Your task to perform on an android device: see tabs open on other devices in the chrome app Image 0: 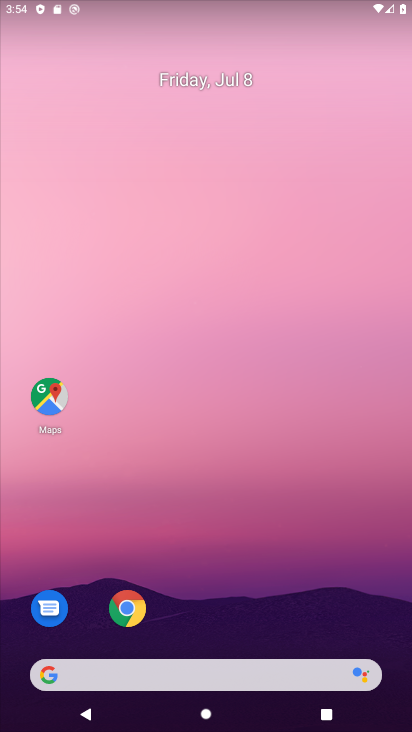
Step 0: press home button
Your task to perform on an android device: see tabs open on other devices in the chrome app Image 1: 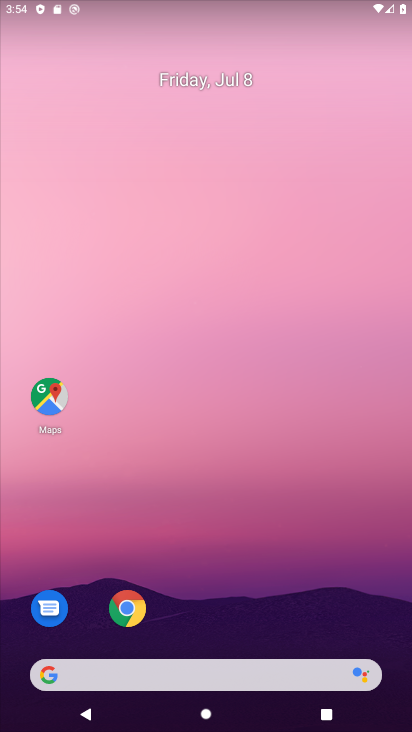
Step 1: drag from (317, 560) to (283, 150)
Your task to perform on an android device: see tabs open on other devices in the chrome app Image 2: 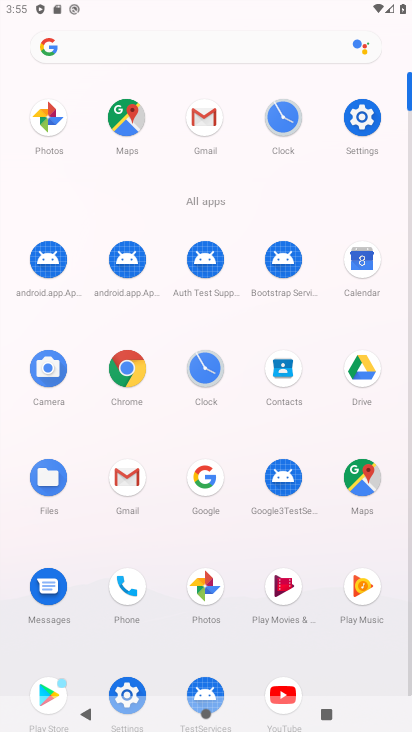
Step 2: click (123, 370)
Your task to perform on an android device: see tabs open on other devices in the chrome app Image 3: 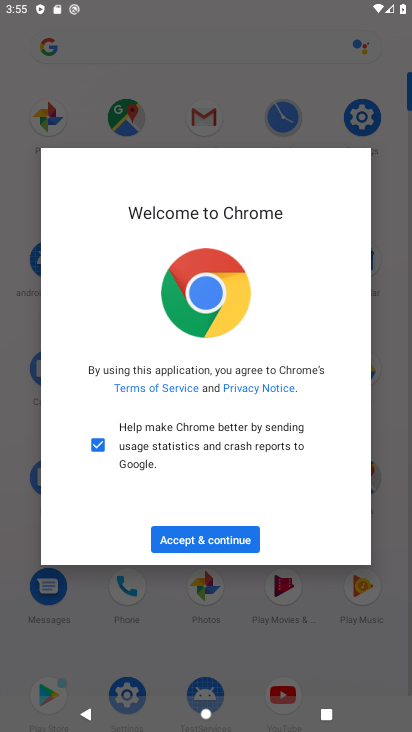
Step 3: click (225, 547)
Your task to perform on an android device: see tabs open on other devices in the chrome app Image 4: 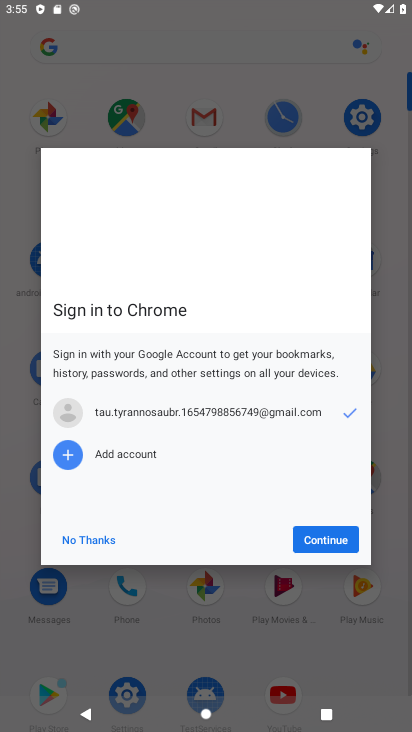
Step 4: click (338, 541)
Your task to perform on an android device: see tabs open on other devices in the chrome app Image 5: 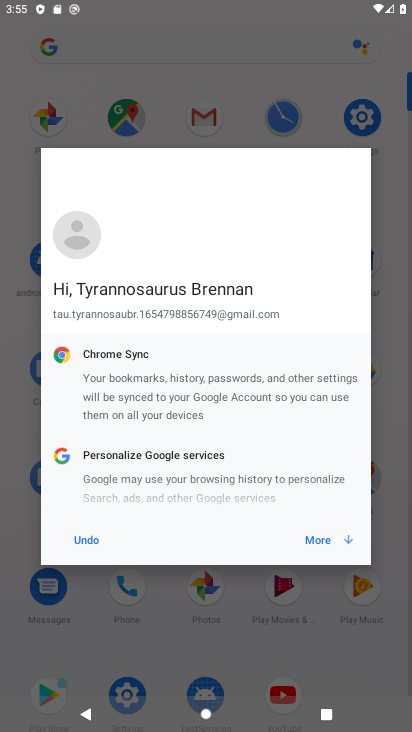
Step 5: click (335, 538)
Your task to perform on an android device: see tabs open on other devices in the chrome app Image 6: 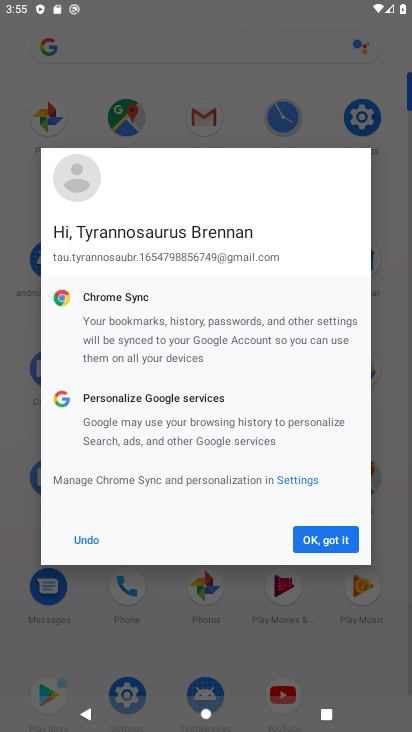
Step 6: click (335, 538)
Your task to perform on an android device: see tabs open on other devices in the chrome app Image 7: 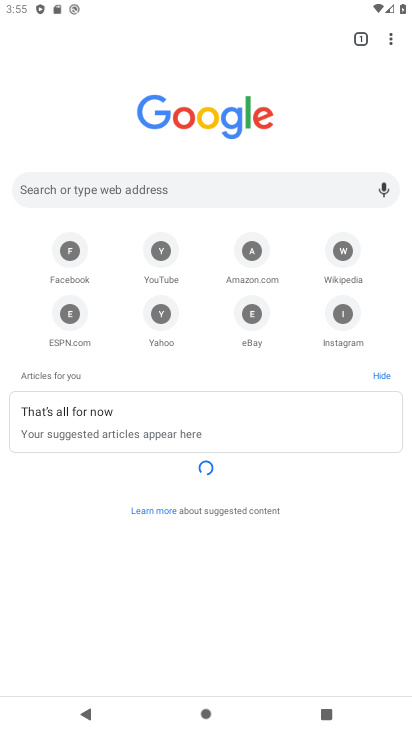
Step 7: click (388, 33)
Your task to perform on an android device: see tabs open on other devices in the chrome app Image 8: 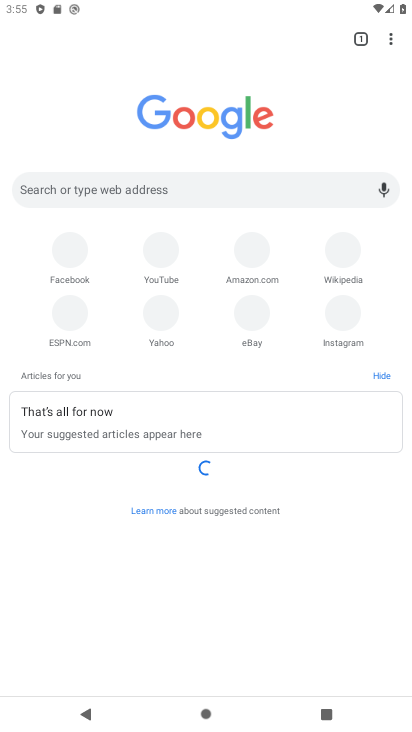
Step 8: drag from (392, 35) to (274, 181)
Your task to perform on an android device: see tabs open on other devices in the chrome app Image 9: 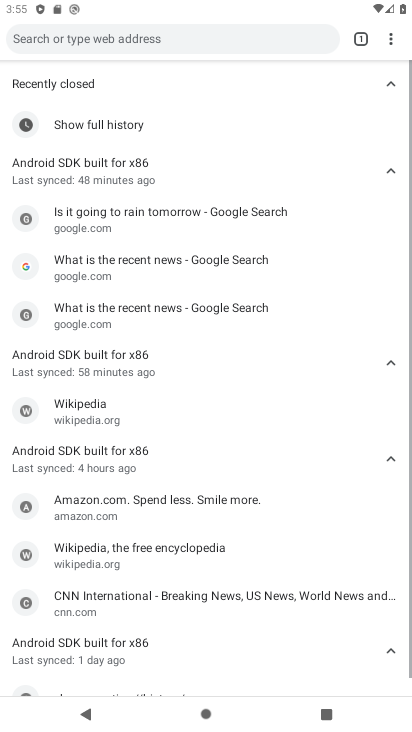
Step 9: click (134, 84)
Your task to perform on an android device: see tabs open on other devices in the chrome app Image 10: 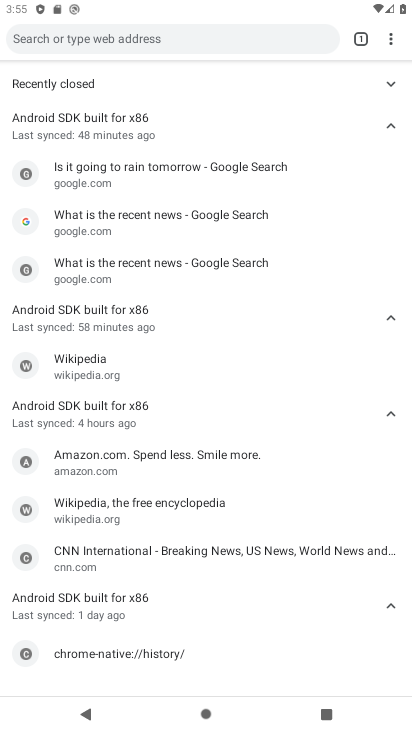
Step 10: click (392, 84)
Your task to perform on an android device: see tabs open on other devices in the chrome app Image 11: 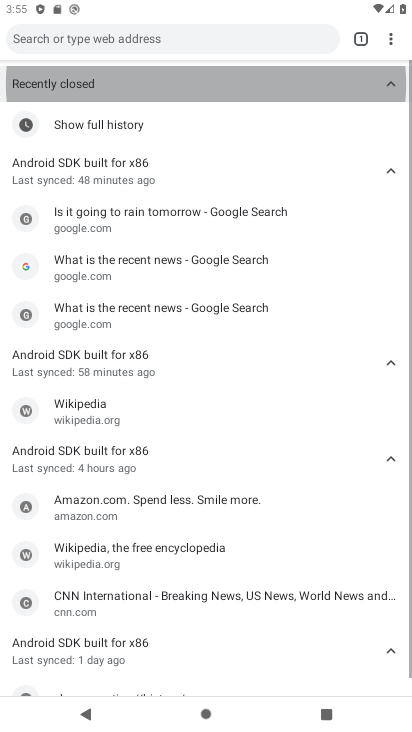
Step 11: click (392, 84)
Your task to perform on an android device: see tabs open on other devices in the chrome app Image 12: 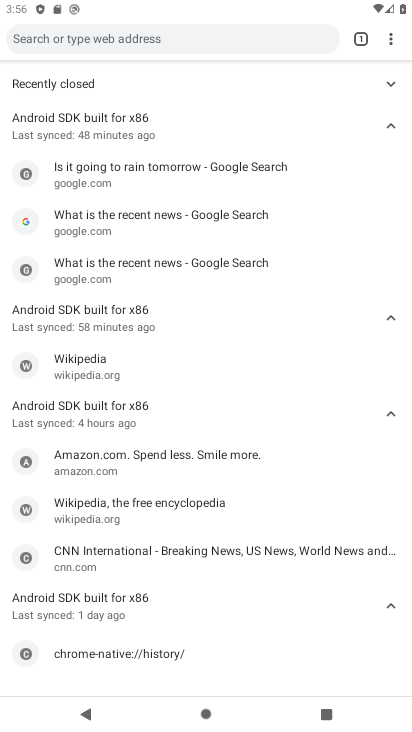
Step 12: task complete